Your task to perform on an android device: toggle translation in the chrome app Image 0: 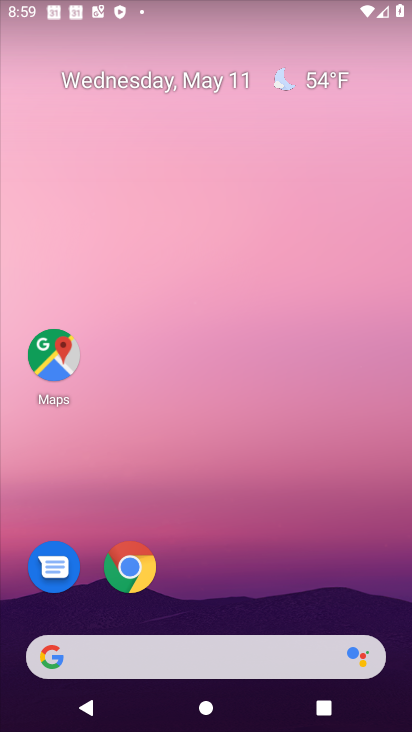
Step 0: click (139, 575)
Your task to perform on an android device: toggle translation in the chrome app Image 1: 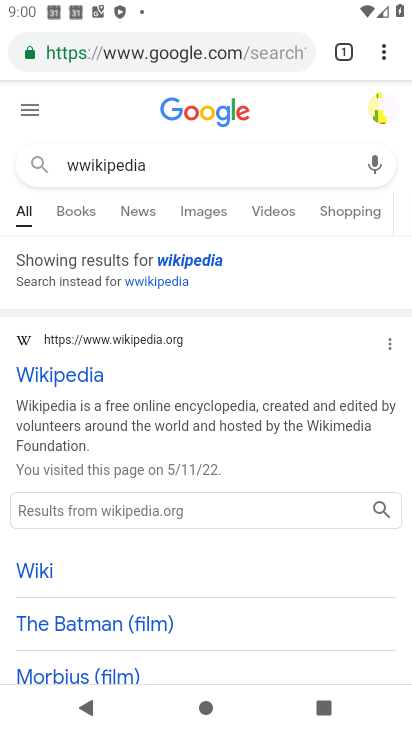
Step 1: click (381, 60)
Your task to perform on an android device: toggle translation in the chrome app Image 2: 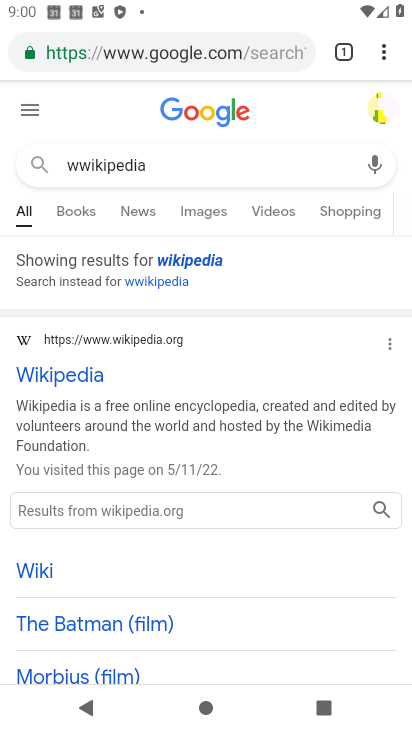
Step 2: click (387, 60)
Your task to perform on an android device: toggle translation in the chrome app Image 3: 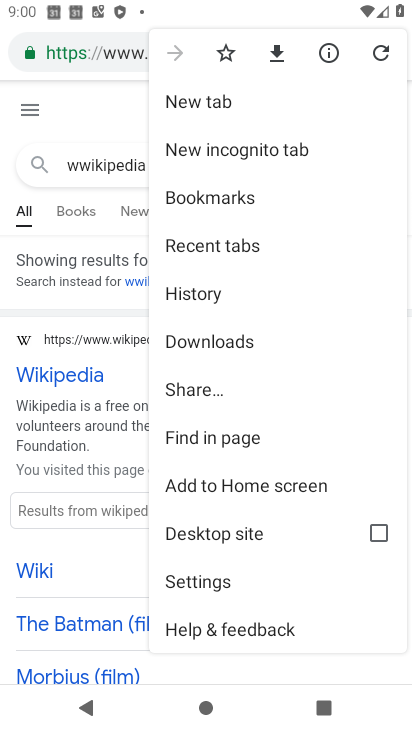
Step 3: click (210, 584)
Your task to perform on an android device: toggle translation in the chrome app Image 4: 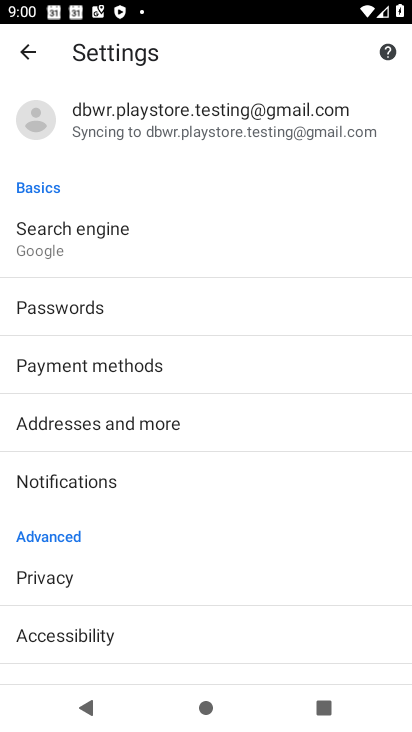
Step 4: drag from (77, 545) to (159, 215)
Your task to perform on an android device: toggle translation in the chrome app Image 5: 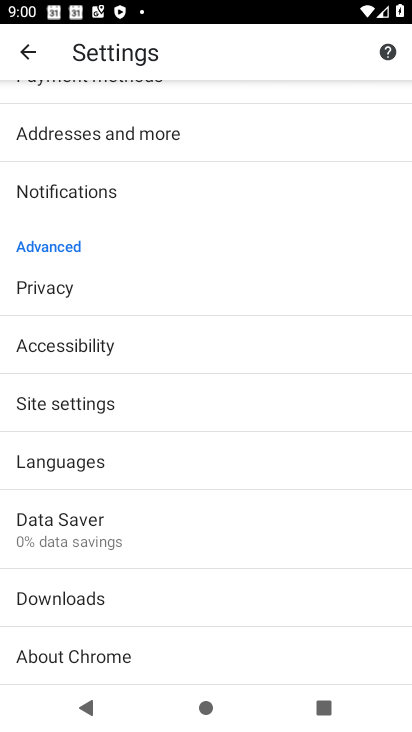
Step 5: drag from (82, 618) to (128, 321)
Your task to perform on an android device: toggle translation in the chrome app Image 6: 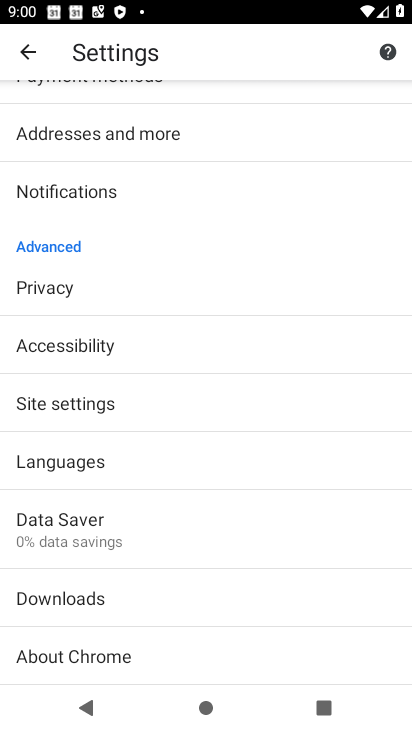
Step 6: click (82, 467)
Your task to perform on an android device: toggle translation in the chrome app Image 7: 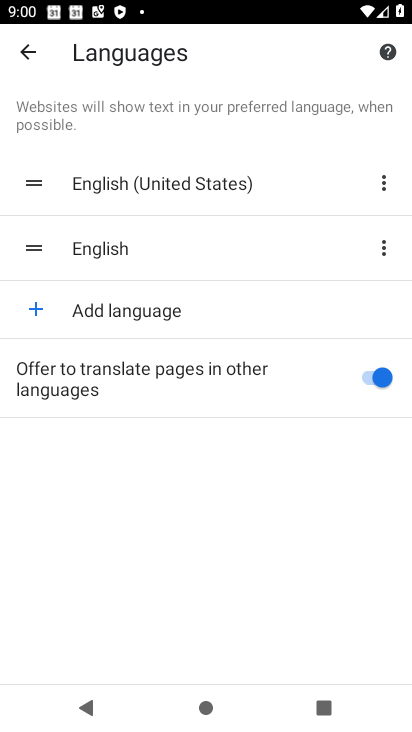
Step 7: click (364, 373)
Your task to perform on an android device: toggle translation in the chrome app Image 8: 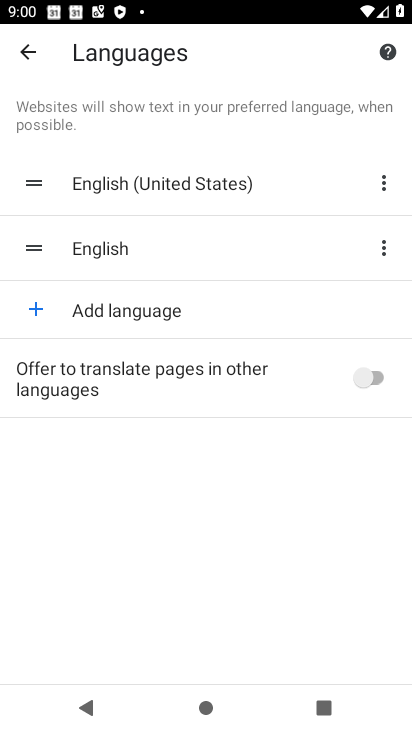
Step 8: task complete